Your task to perform on an android device: Add "usb-c to usb-b" to the cart on ebay, then select checkout. Image 0: 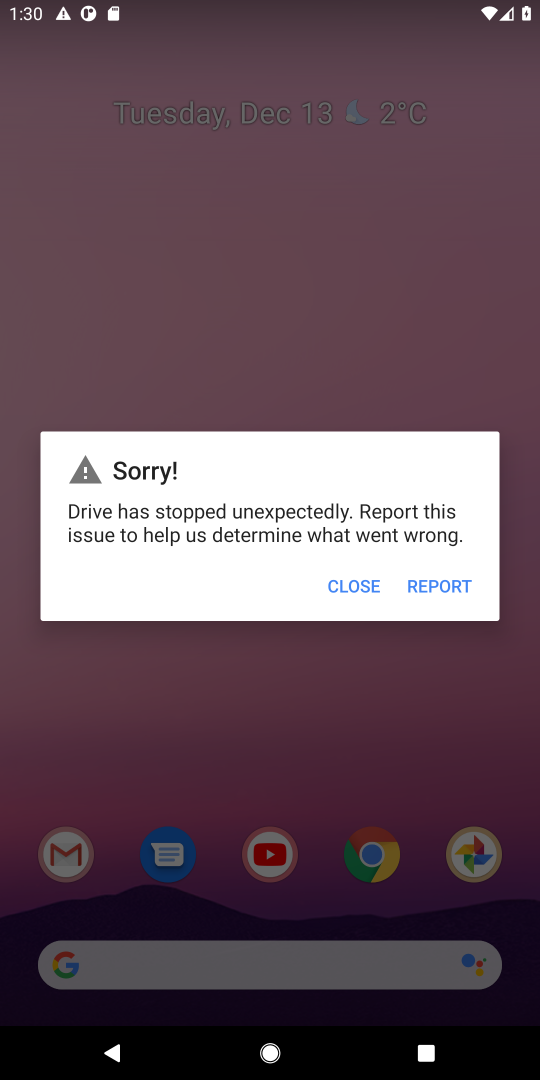
Step 0: click (370, 864)
Your task to perform on an android device: Add "usb-c to usb-b" to the cart on ebay, then select checkout. Image 1: 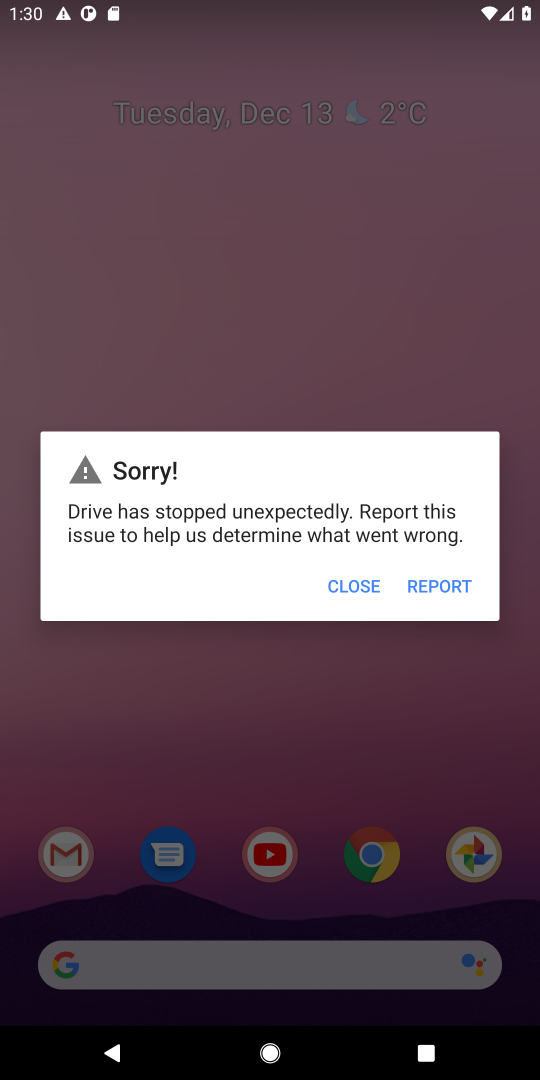
Step 1: click (365, 588)
Your task to perform on an android device: Add "usb-c to usb-b" to the cart on ebay, then select checkout. Image 2: 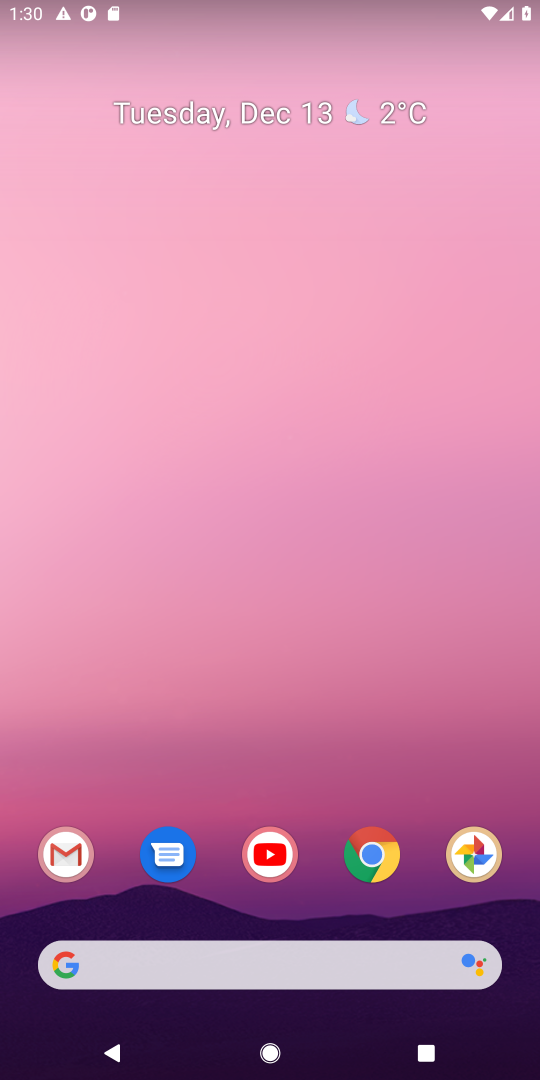
Step 2: click (382, 862)
Your task to perform on an android device: Add "usb-c to usb-b" to the cart on ebay, then select checkout. Image 3: 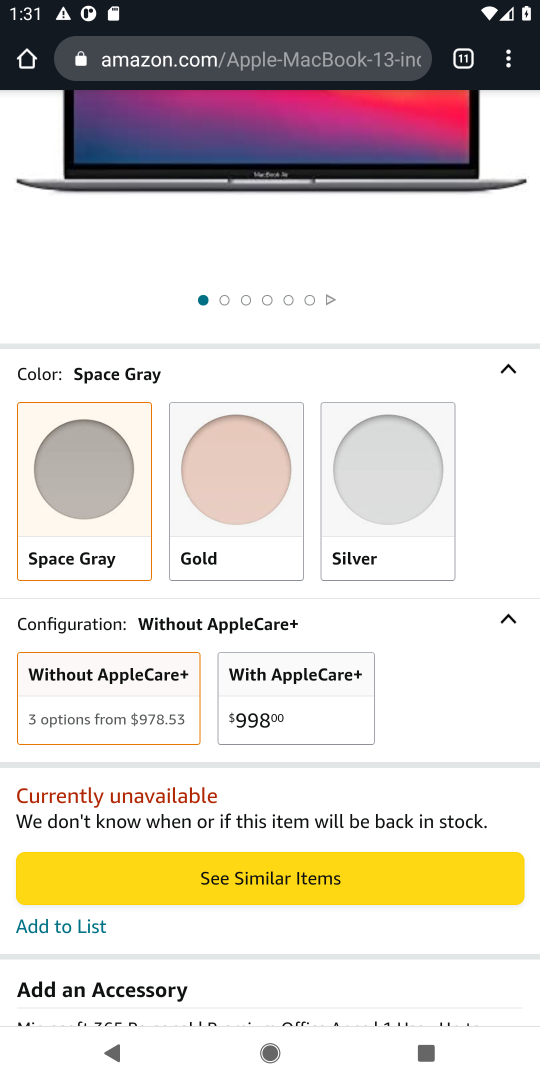
Step 3: task complete